Your task to perform on an android device: Go to wifi settings Image 0: 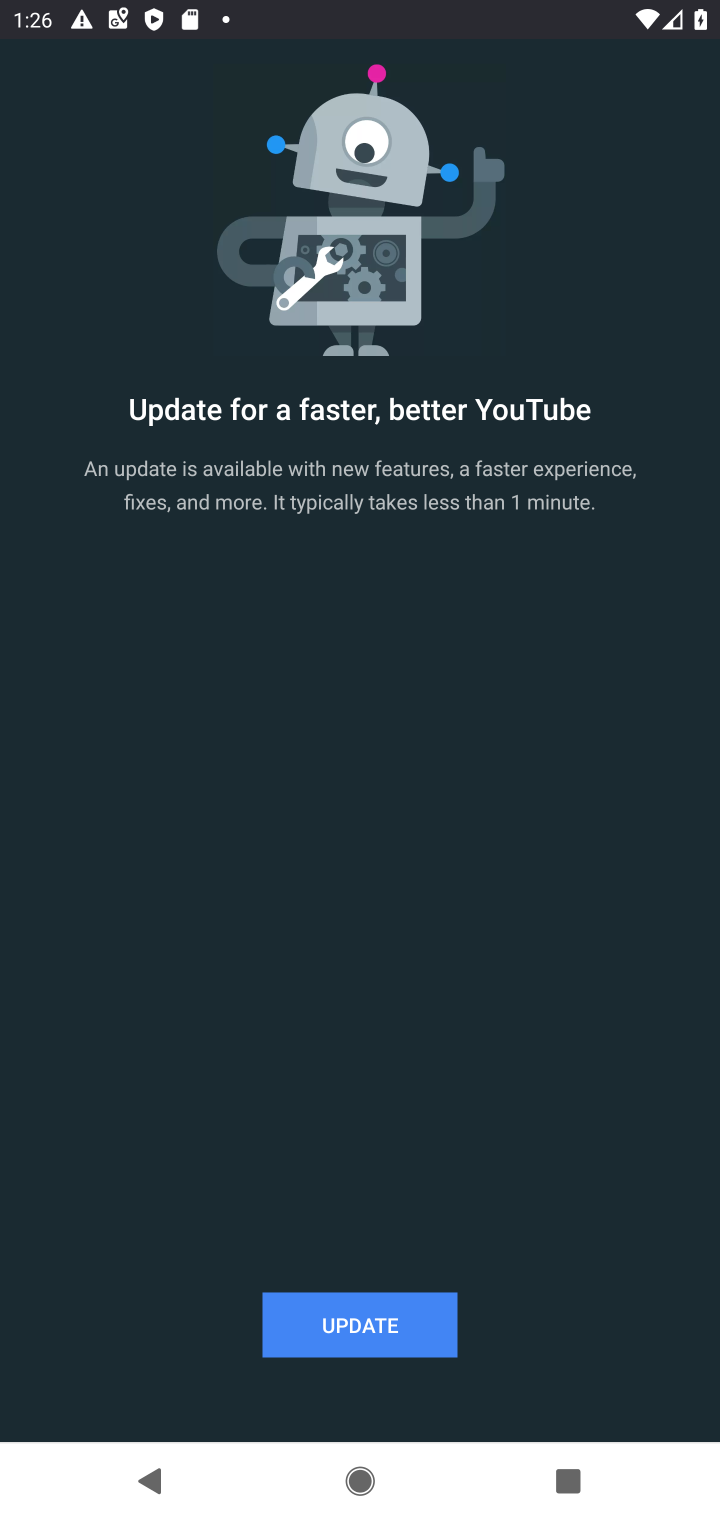
Step 0: press home button
Your task to perform on an android device: Go to wifi settings Image 1: 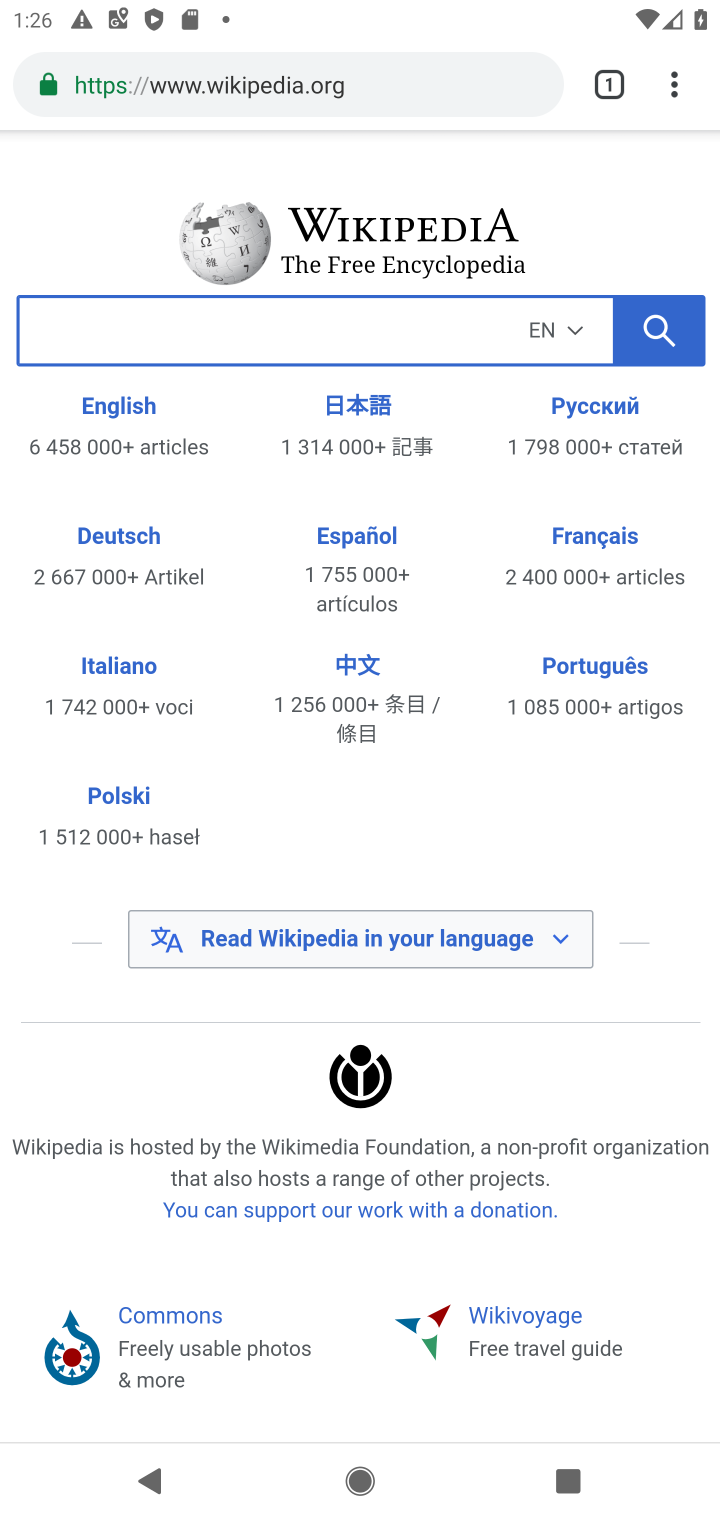
Step 1: press home button
Your task to perform on an android device: Go to wifi settings Image 2: 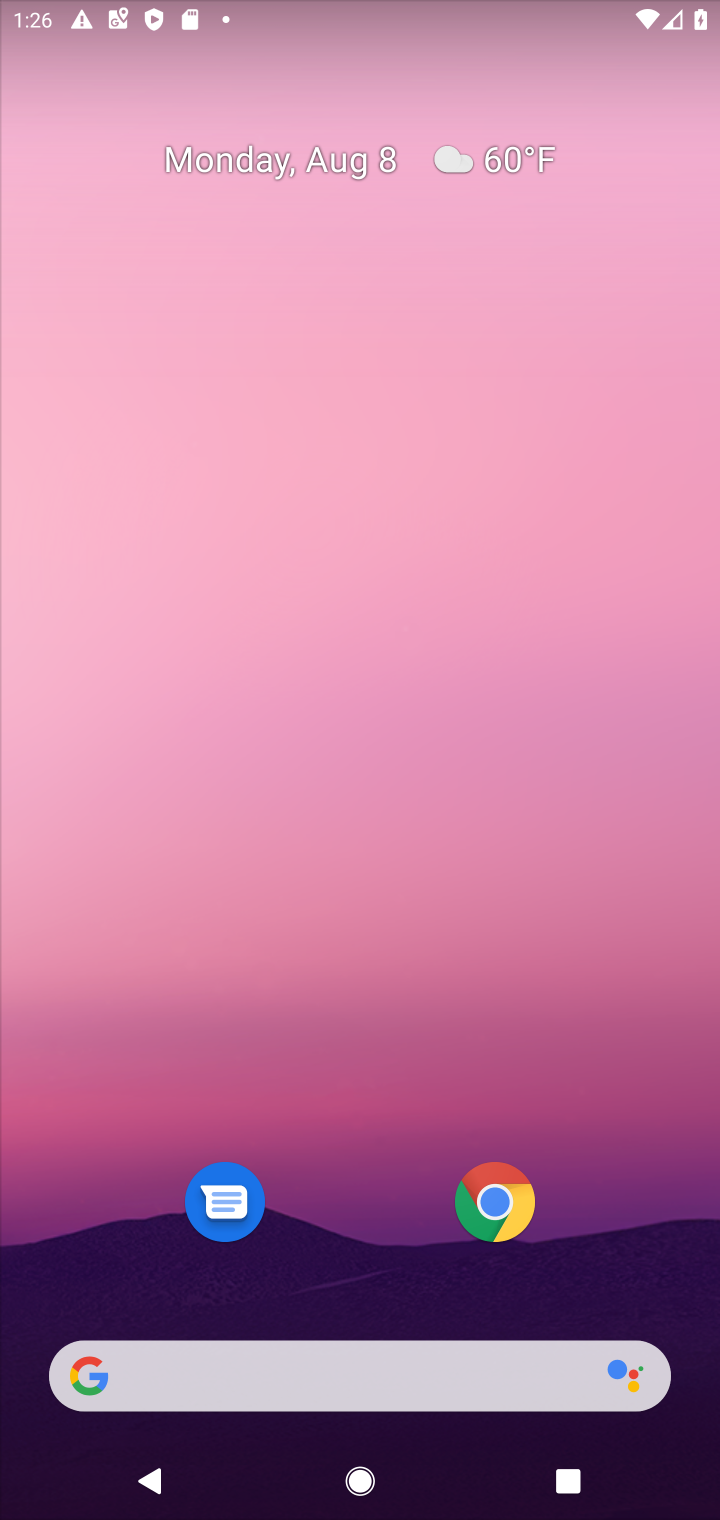
Step 2: press home button
Your task to perform on an android device: Go to wifi settings Image 3: 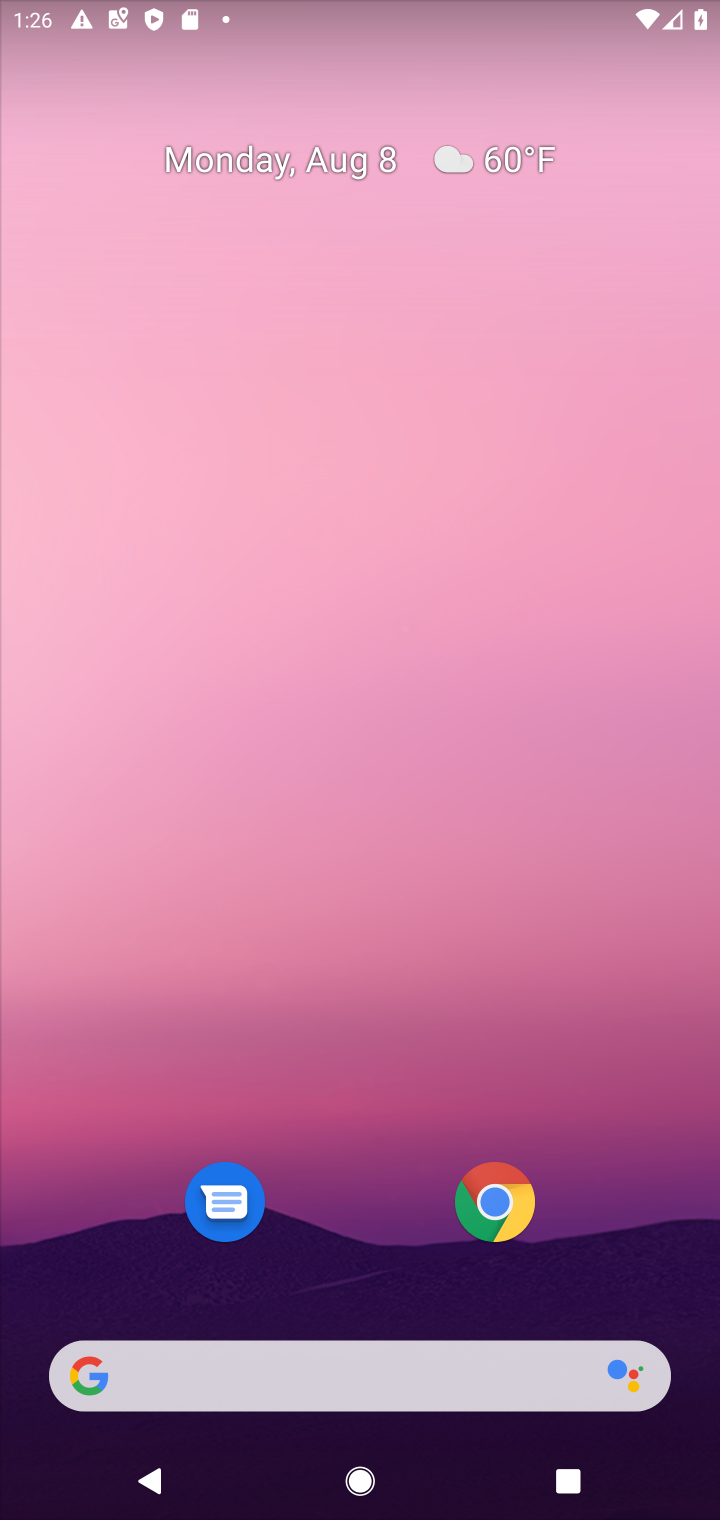
Step 3: drag from (627, 1215) to (665, 404)
Your task to perform on an android device: Go to wifi settings Image 4: 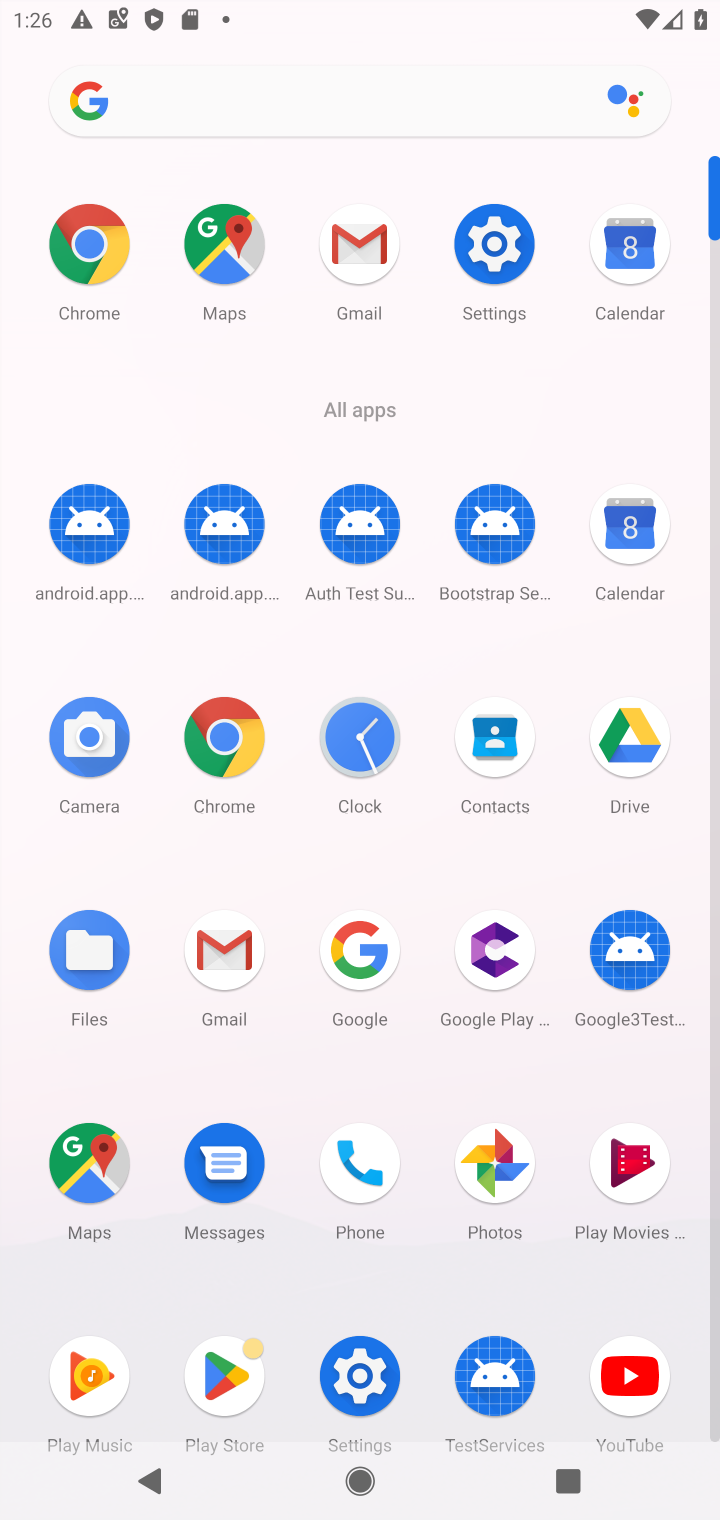
Step 4: click (498, 240)
Your task to perform on an android device: Go to wifi settings Image 5: 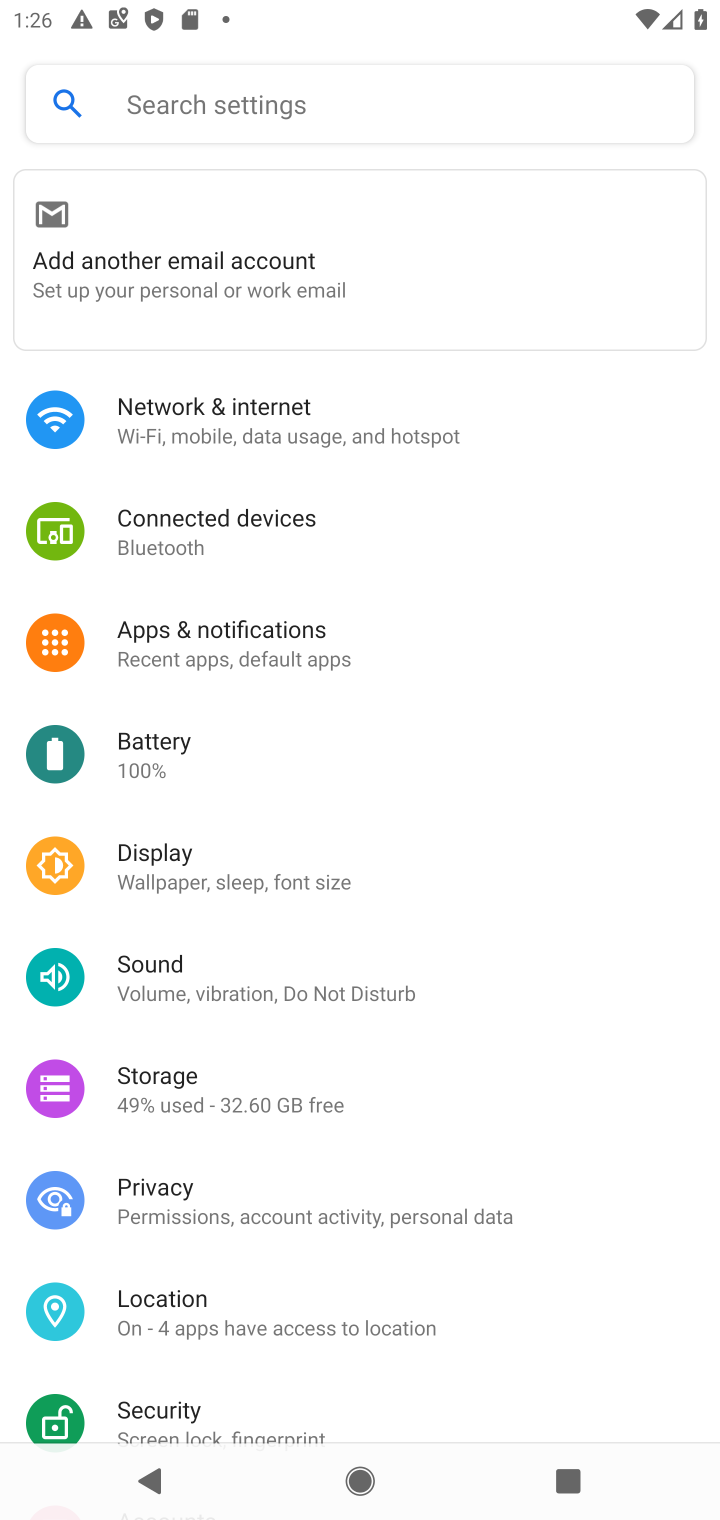
Step 5: drag from (614, 929) to (637, 697)
Your task to perform on an android device: Go to wifi settings Image 6: 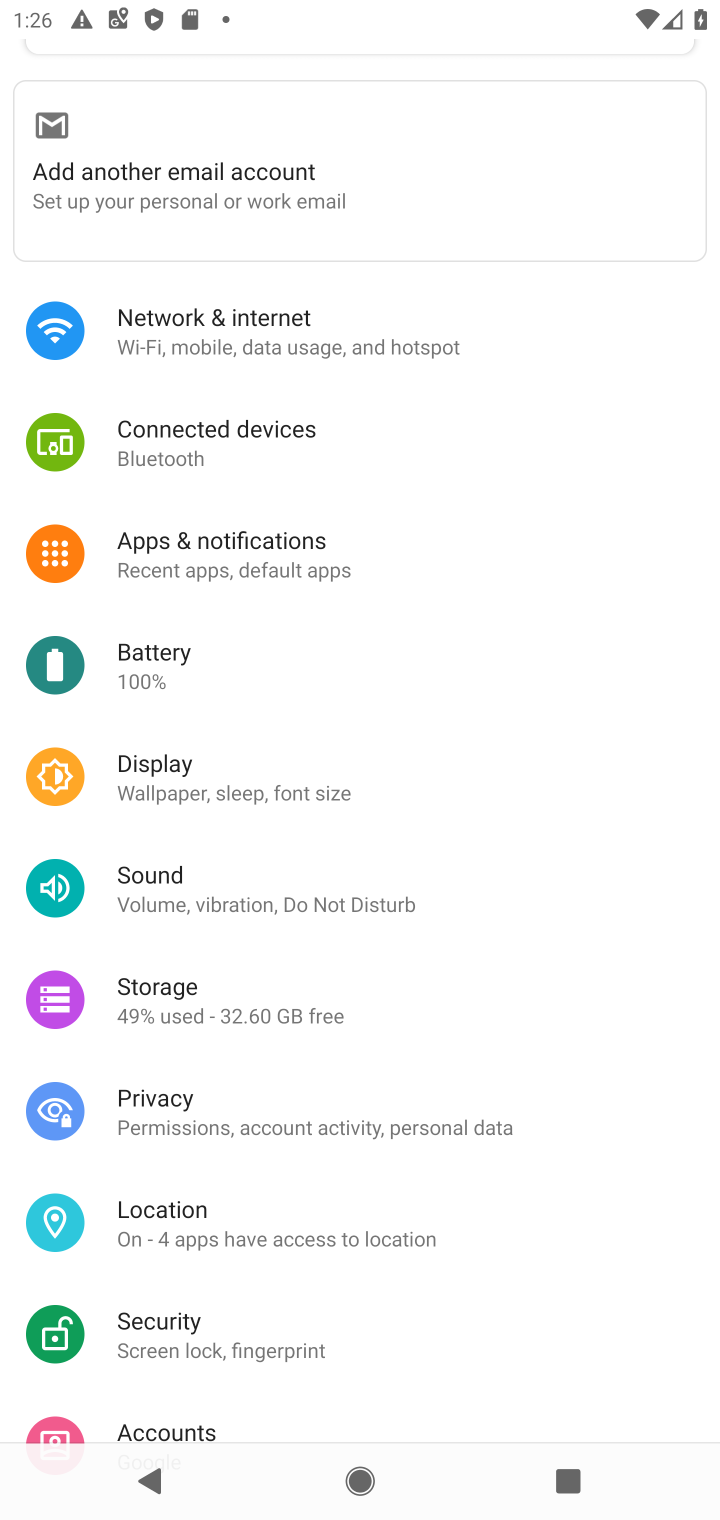
Step 6: drag from (603, 1198) to (603, 958)
Your task to perform on an android device: Go to wifi settings Image 7: 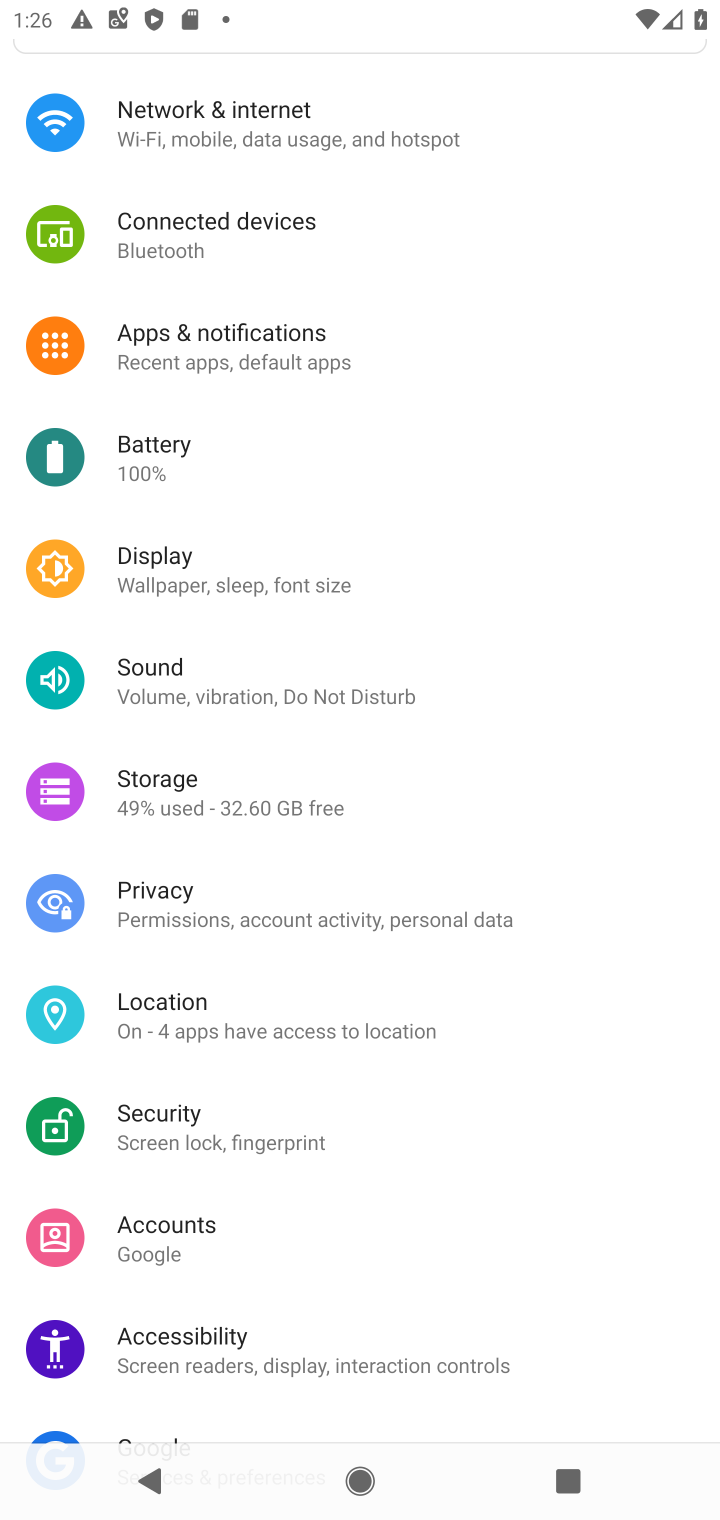
Step 7: drag from (579, 1224) to (618, 929)
Your task to perform on an android device: Go to wifi settings Image 8: 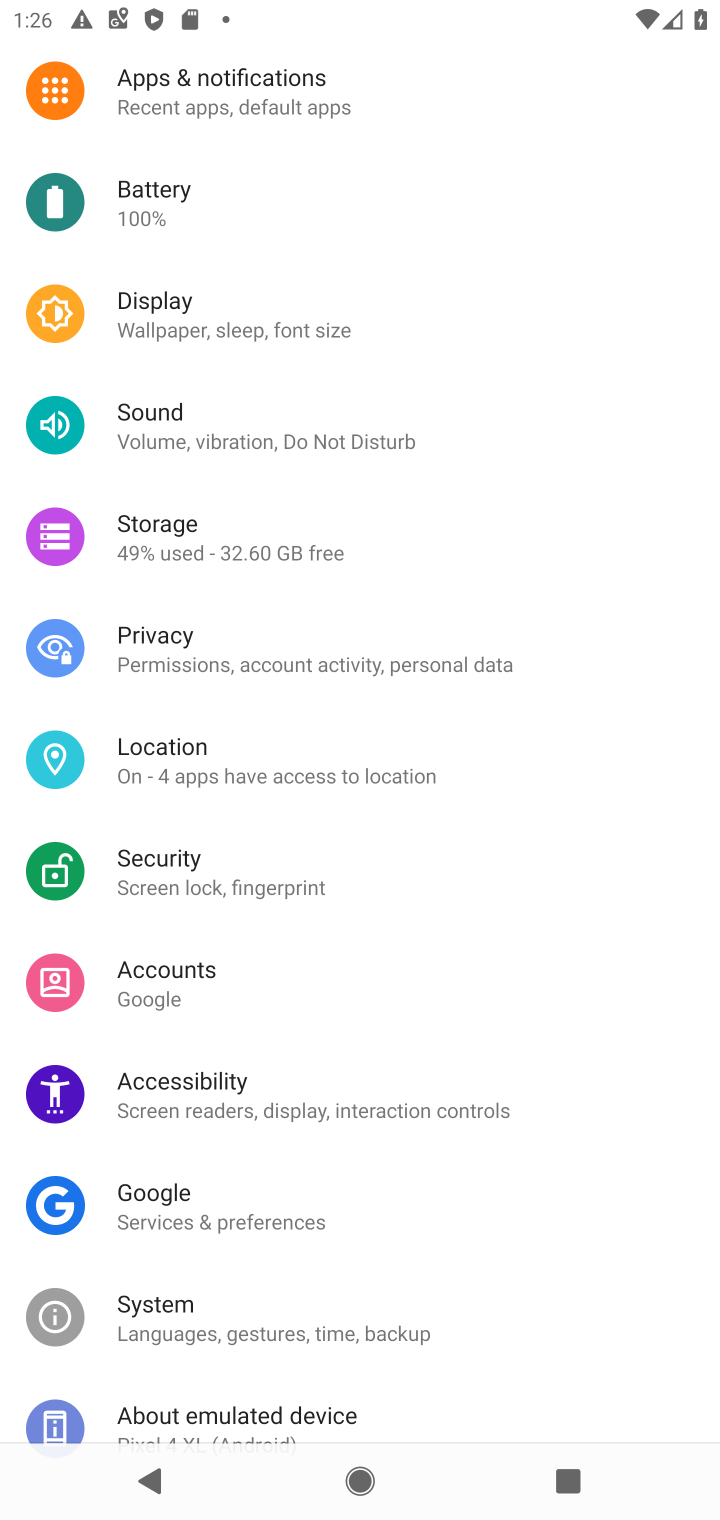
Step 8: drag from (578, 1161) to (596, 1014)
Your task to perform on an android device: Go to wifi settings Image 9: 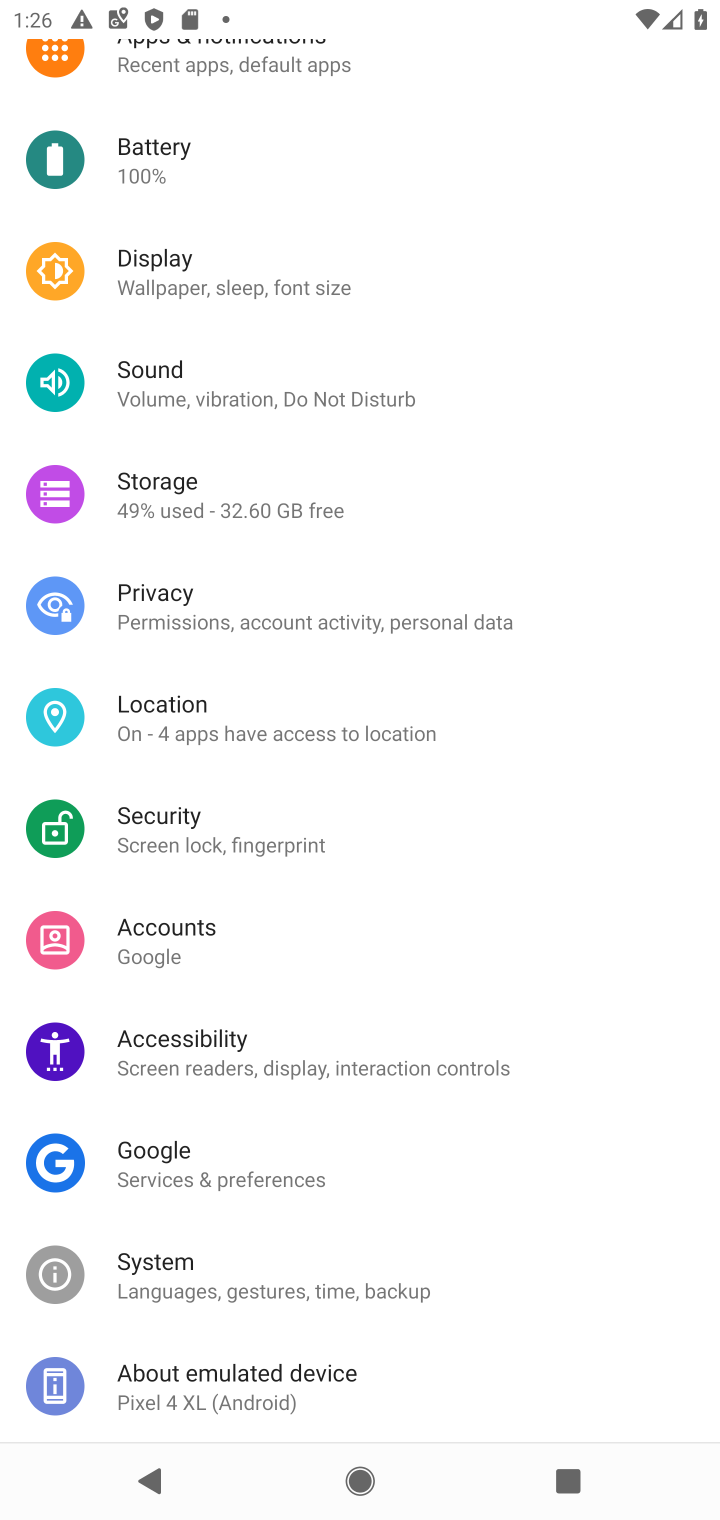
Step 9: drag from (594, 1261) to (605, 1011)
Your task to perform on an android device: Go to wifi settings Image 10: 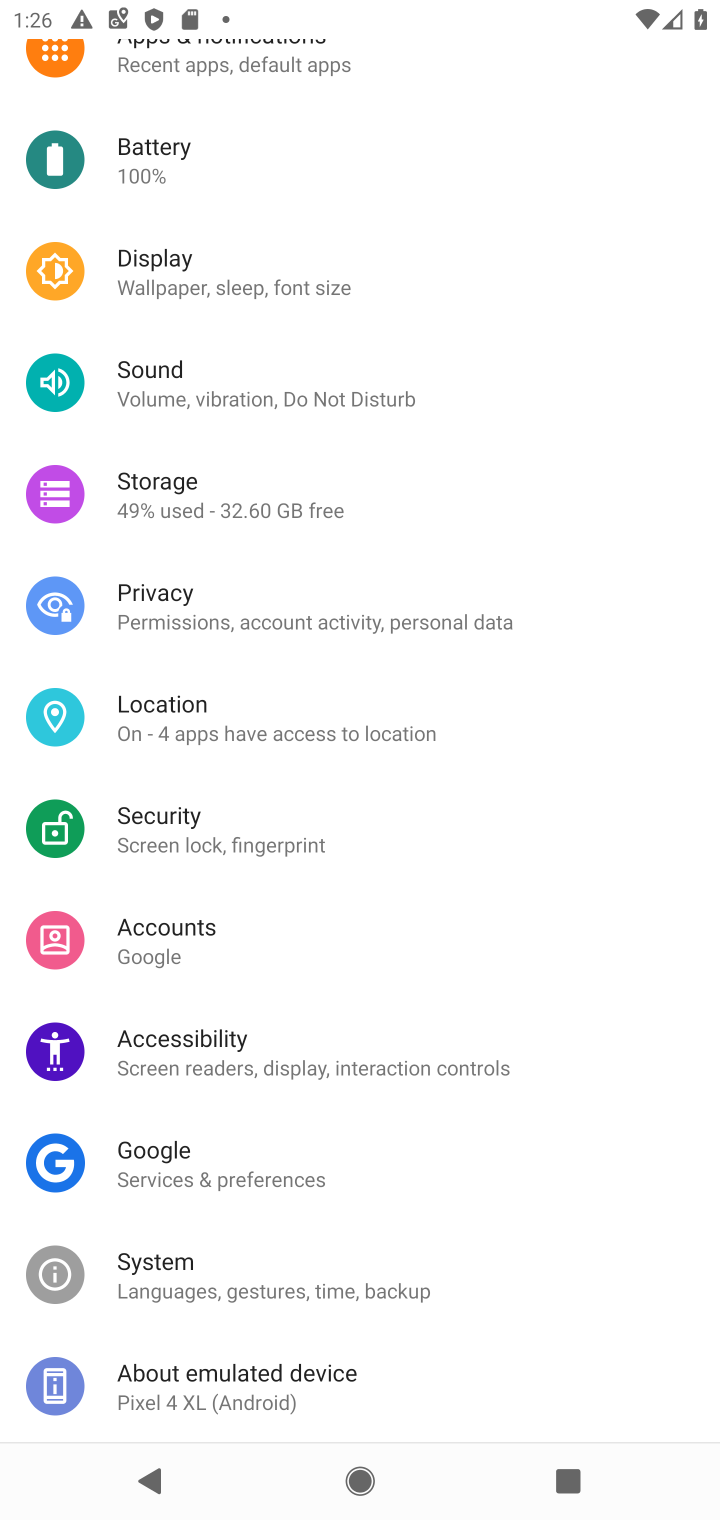
Step 10: drag from (589, 868) to (614, 1104)
Your task to perform on an android device: Go to wifi settings Image 11: 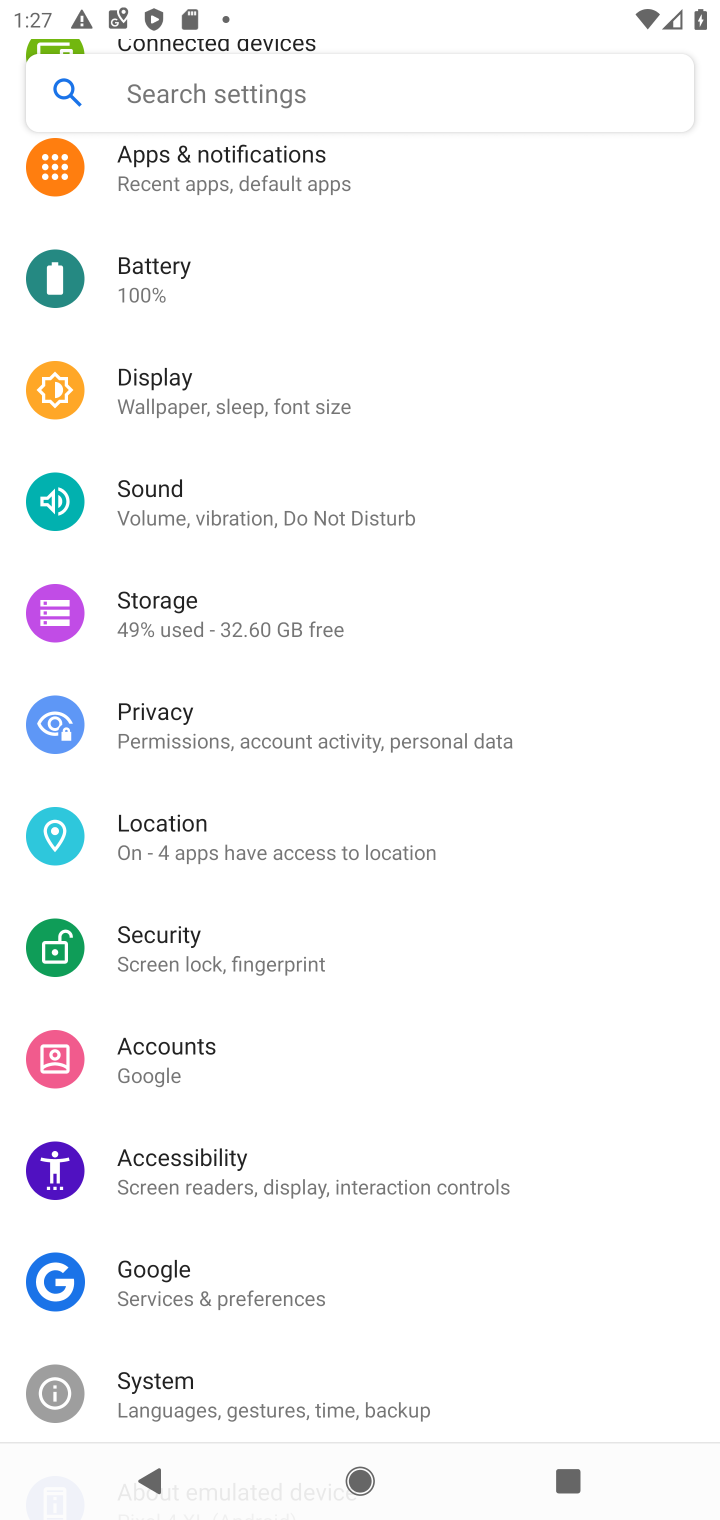
Step 11: drag from (630, 724) to (624, 980)
Your task to perform on an android device: Go to wifi settings Image 12: 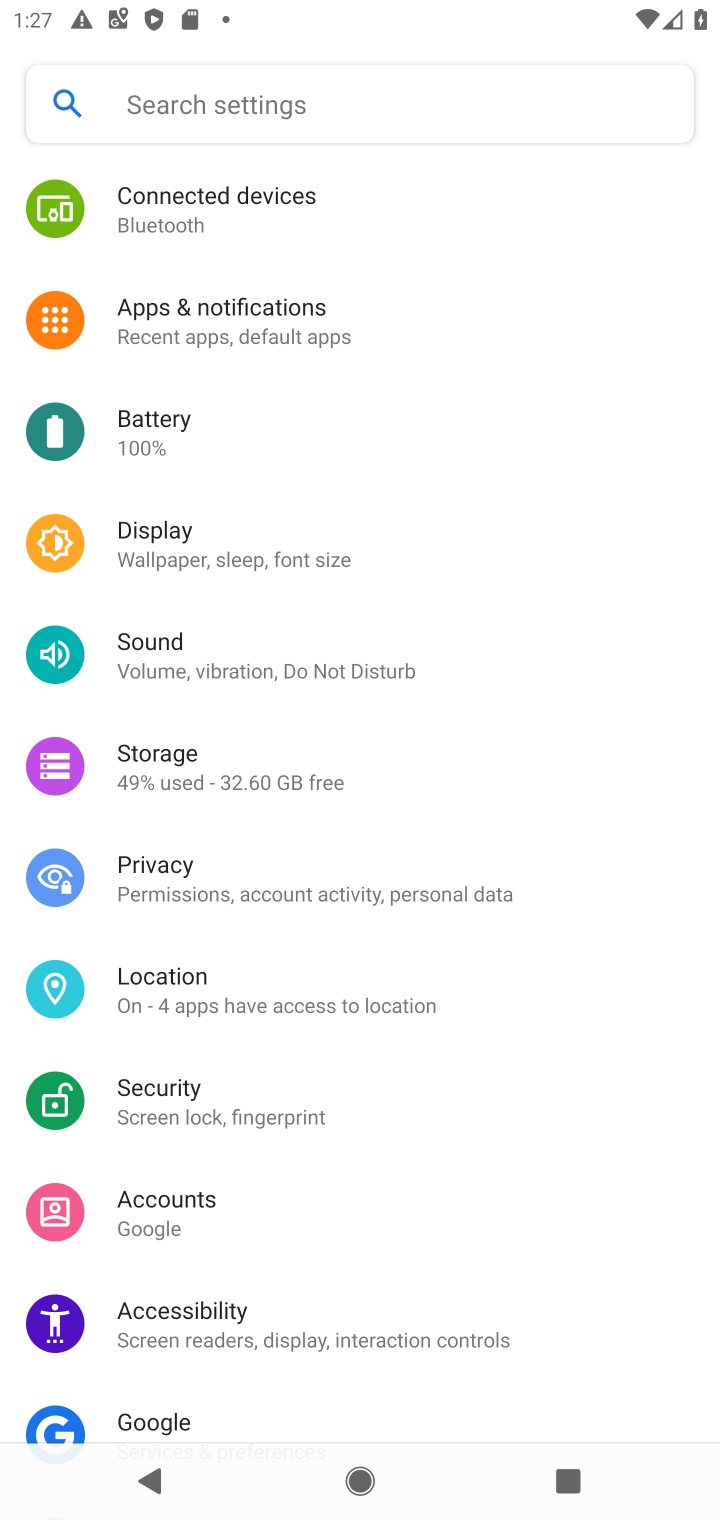
Step 12: drag from (619, 626) to (648, 965)
Your task to perform on an android device: Go to wifi settings Image 13: 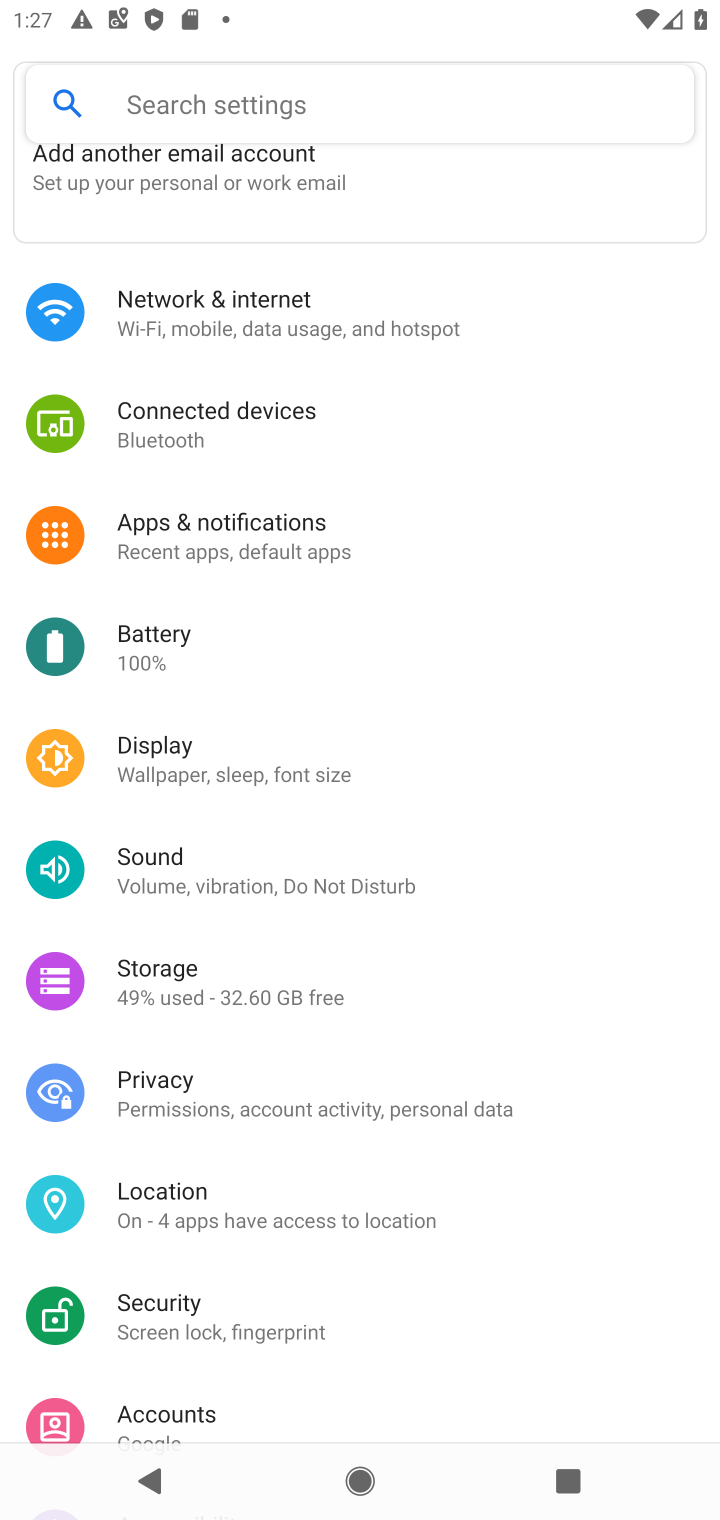
Step 13: drag from (598, 537) to (601, 903)
Your task to perform on an android device: Go to wifi settings Image 14: 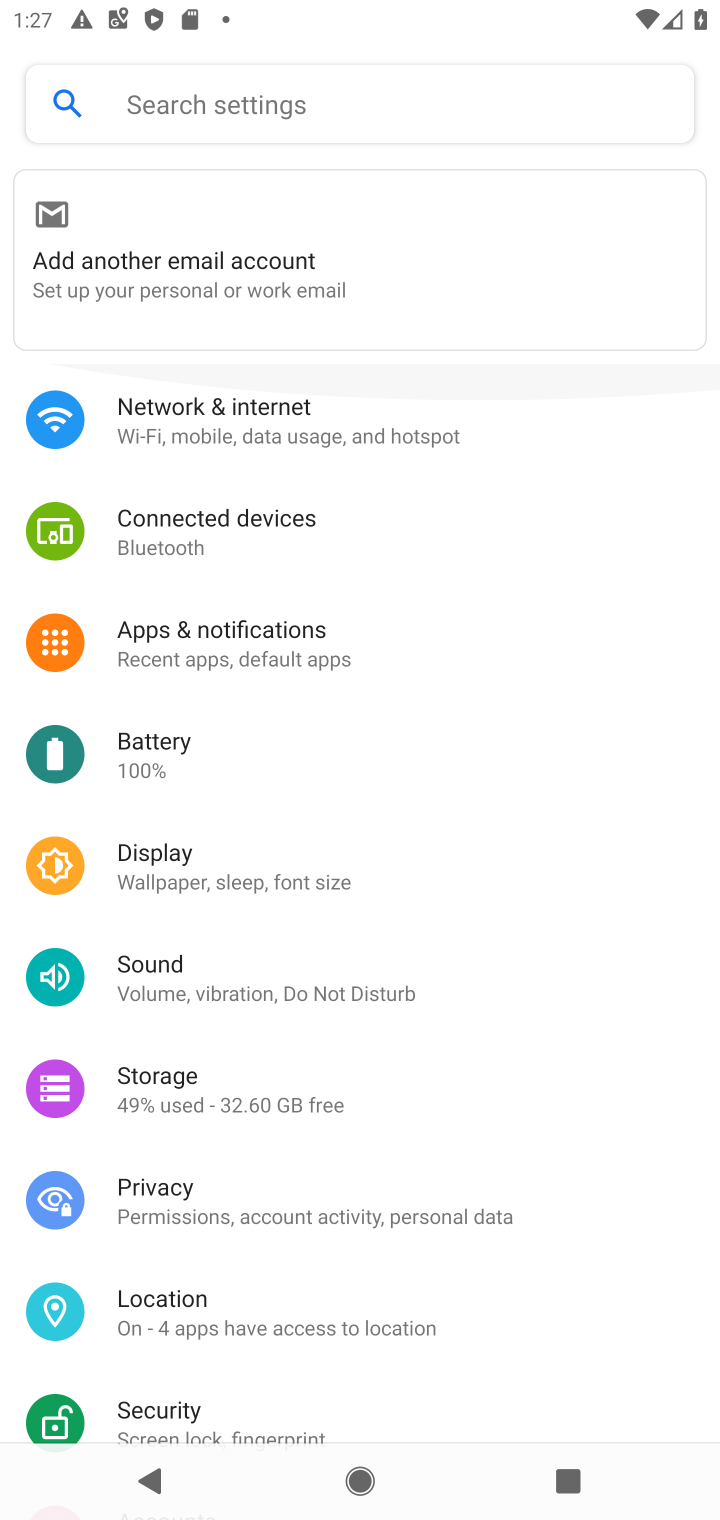
Step 14: drag from (607, 554) to (572, 885)
Your task to perform on an android device: Go to wifi settings Image 15: 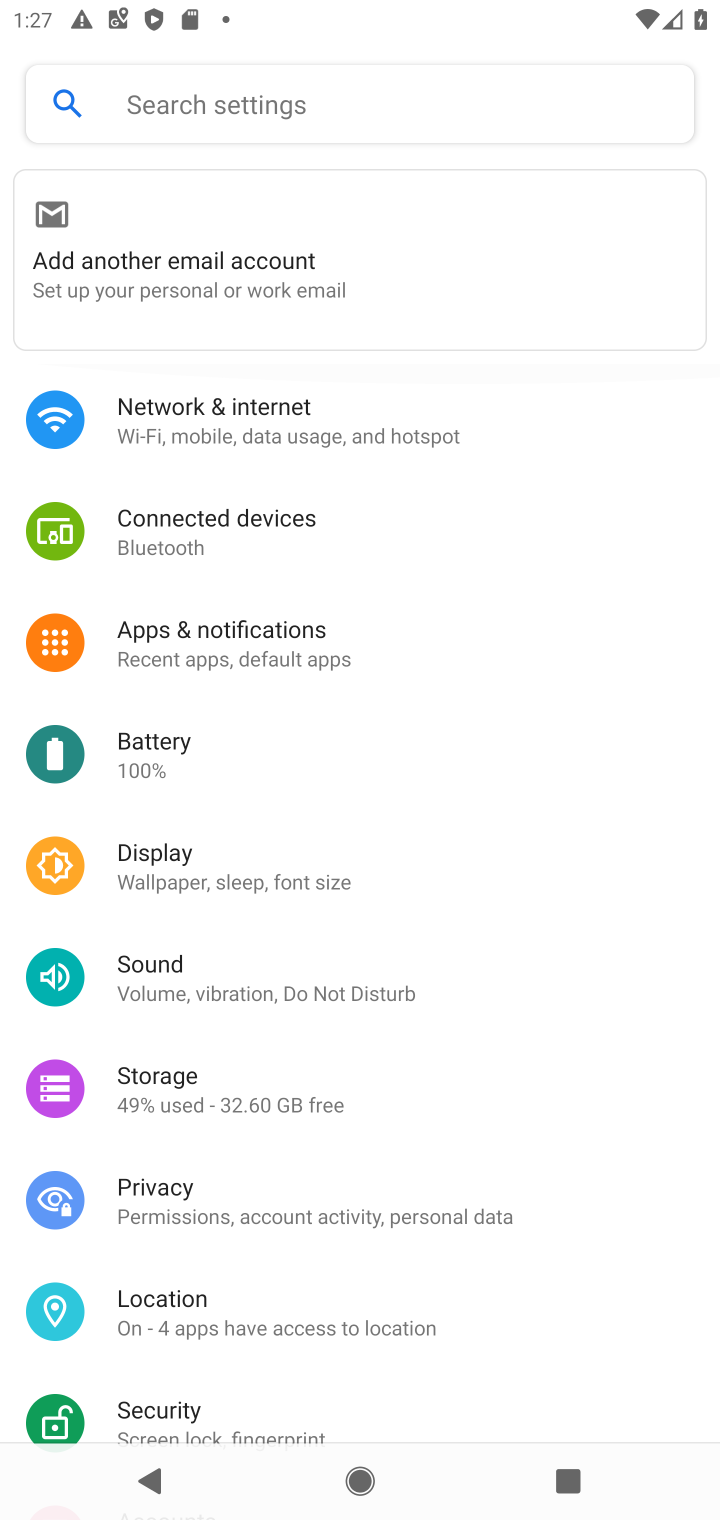
Step 15: click (393, 410)
Your task to perform on an android device: Go to wifi settings Image 16: 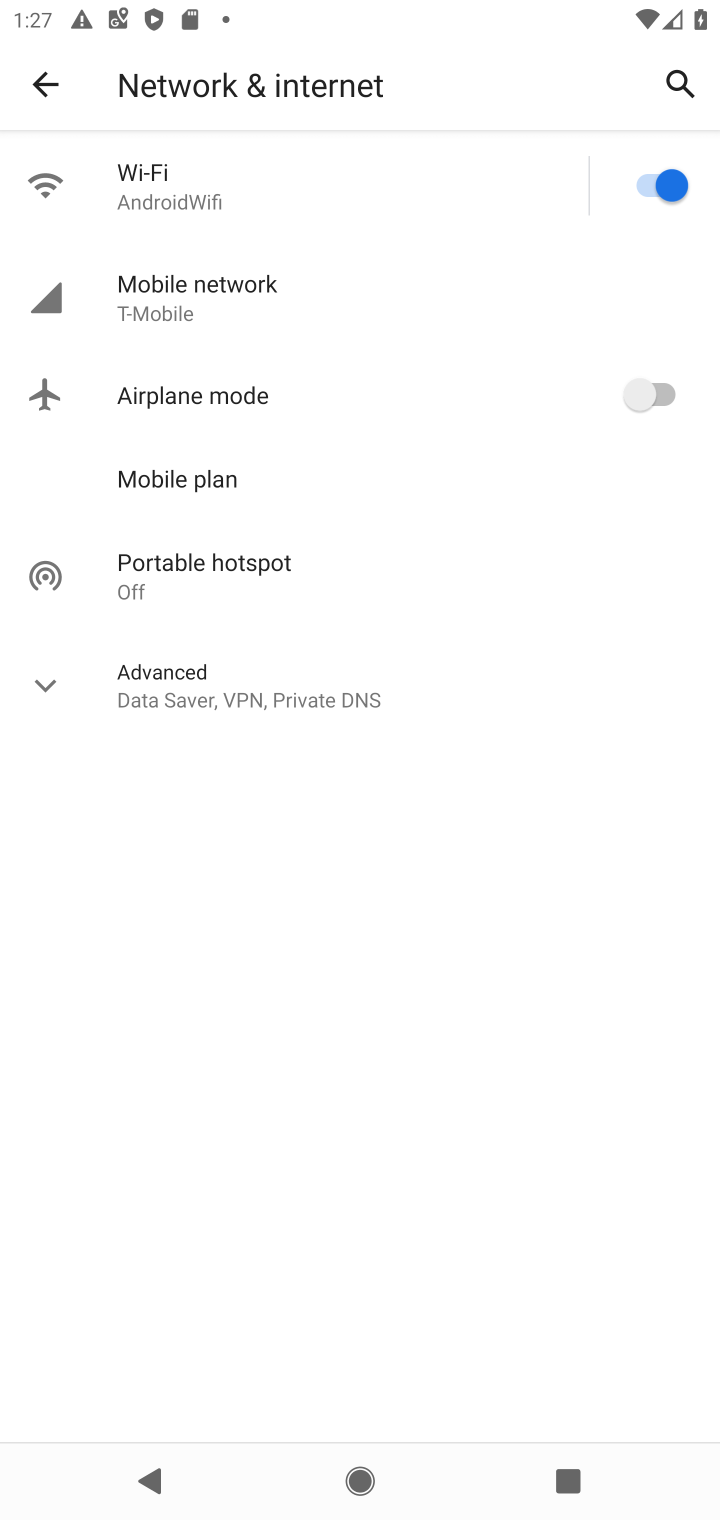
Step 16: click (226, 186)
Your task to perform on an android device: Go to wifi settings Image 17: 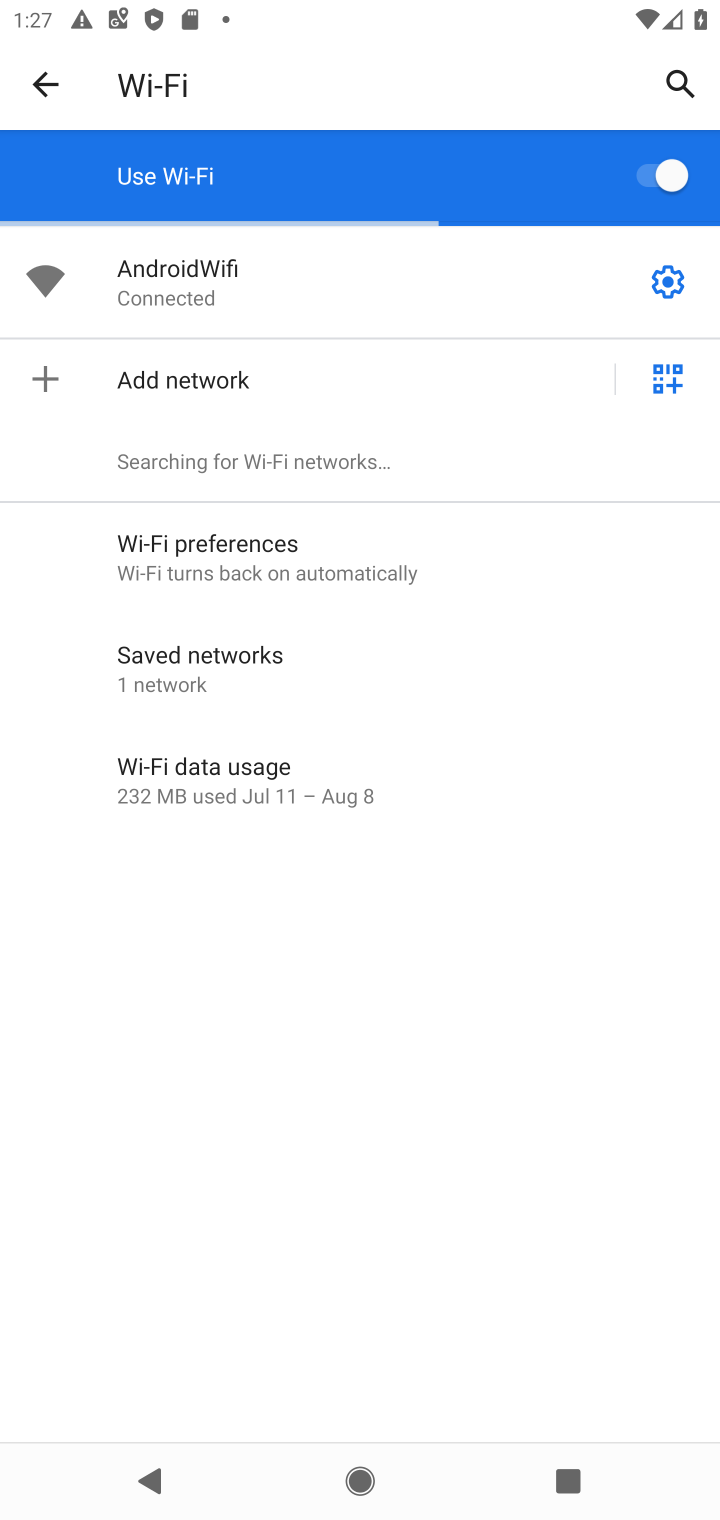
Step 17: task complete